Your task to perform on an android device: Go to notification settings Image 0: 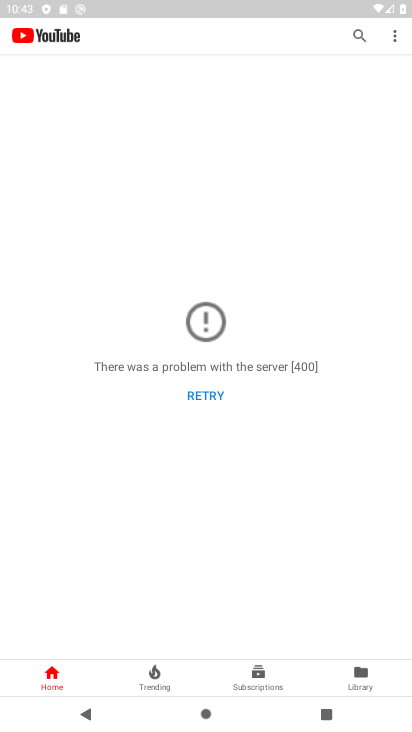
Step 0: press home button
Your task to perform on an android device: Go to notification settings Image 1: 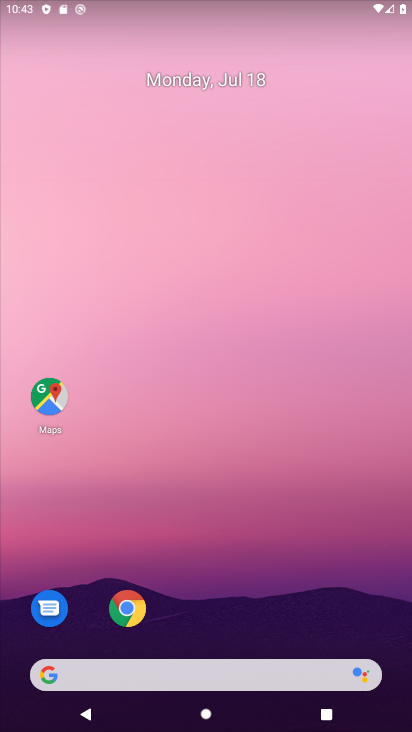
Step 1: drag from (15, 635) to (361, 81)
Your task to perform on an android device: Go to notification settings Image 2: 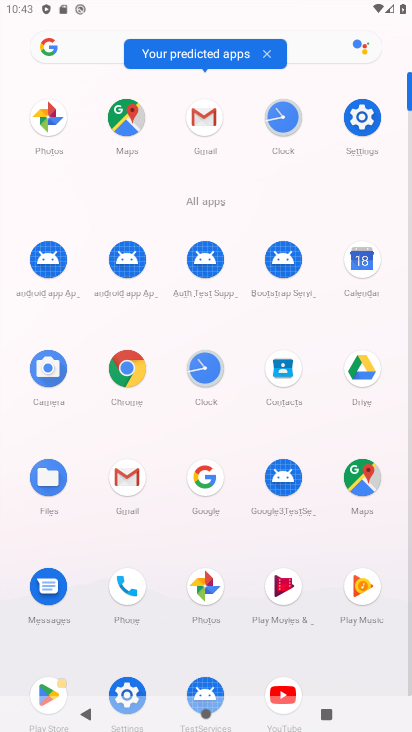
Step 2: click (372, 115)
Your task to perform on an android device: Go to notification settings Image 3: 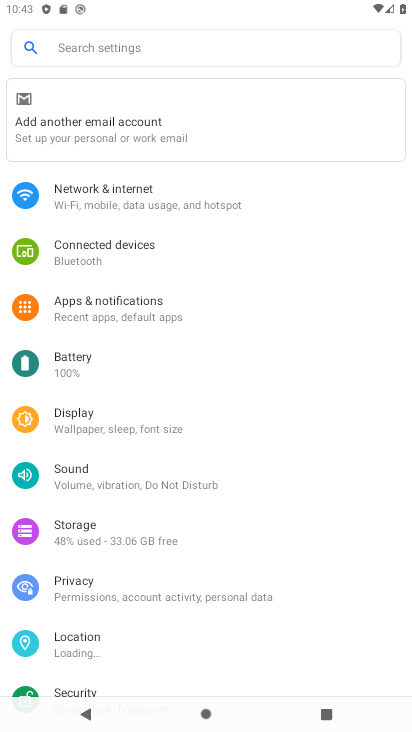
Step 3: click (84, 308)
Your task to perform on an android device: Go to notification settings Image 4: 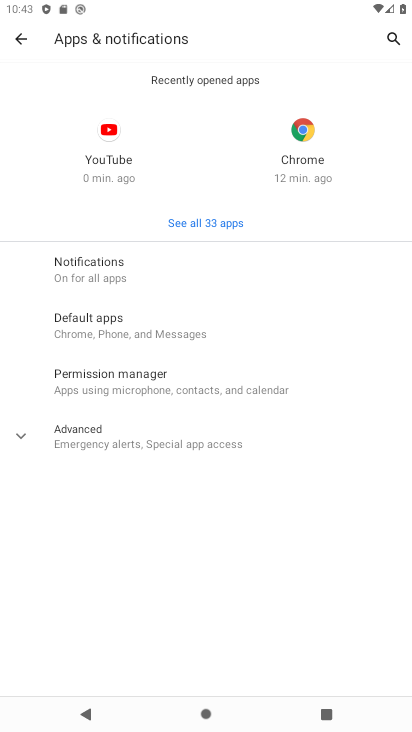
Step 4: click (94, 264)
Your task to perform on an android device: Go to notification settings Image 5: 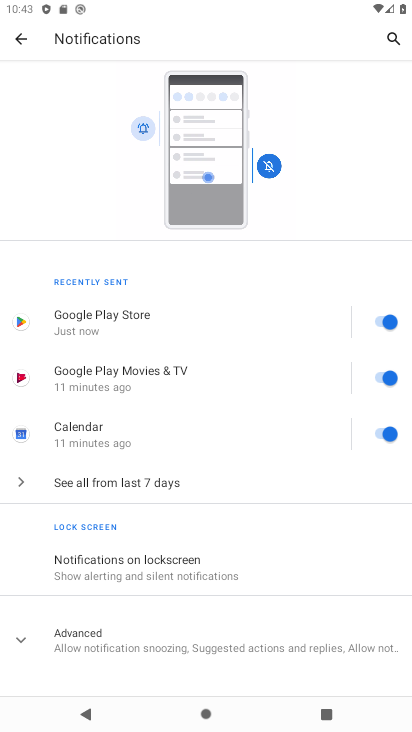
Step 5: click (389, 320)
Your task to perform on an android device: Go to notification settings Image 6: 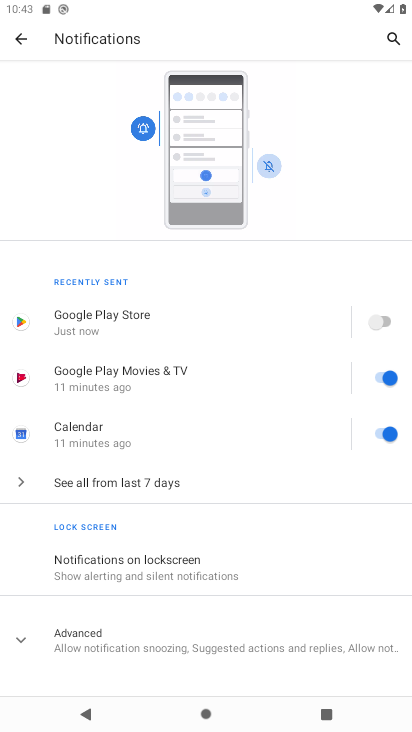
Step 6: task complete